Your task to perform on an android device: Open accessibility settings Image 0: 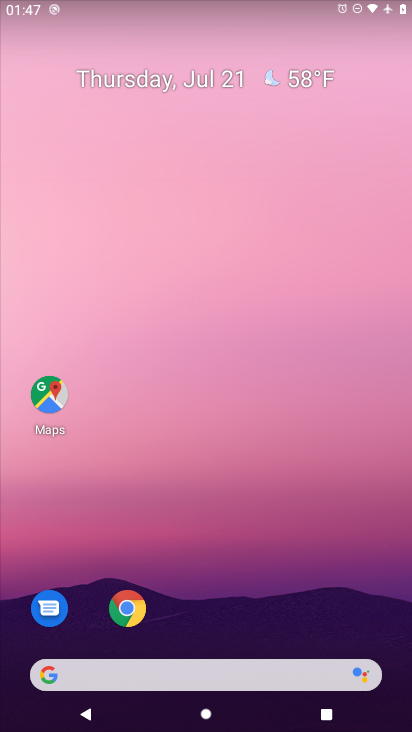
Step 0: press home button
Your task to perform on an android device: Open accessibility settings Image 1: 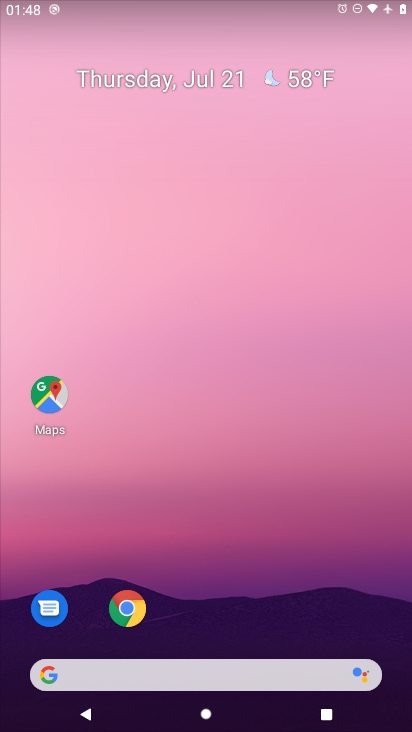
Step 1: drag from (247, 614) to (343, 31)
Your task to perform on an android device: Open accessibility settings Image 2: 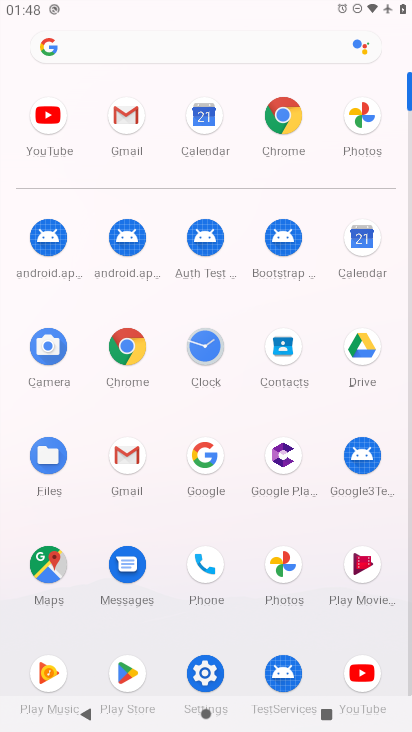
Step 2: click (203, 663)
Your task to perform on an android device: Open accessibility settings Image 3: 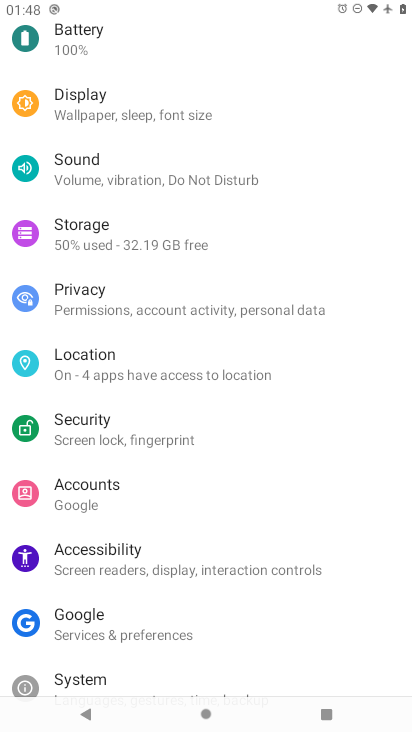
Step 3: click (88, 553)
Your task to perform on an android device: Open accessibility settings Image 4: 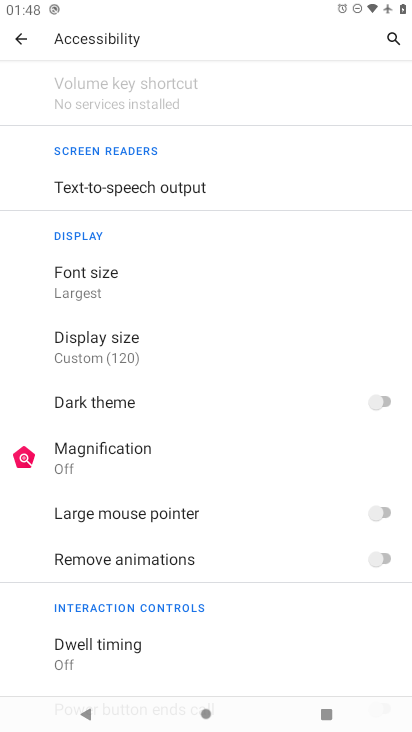
Step 4: task complete